Your task to perform on an android device: turn notification dots on Image 0: 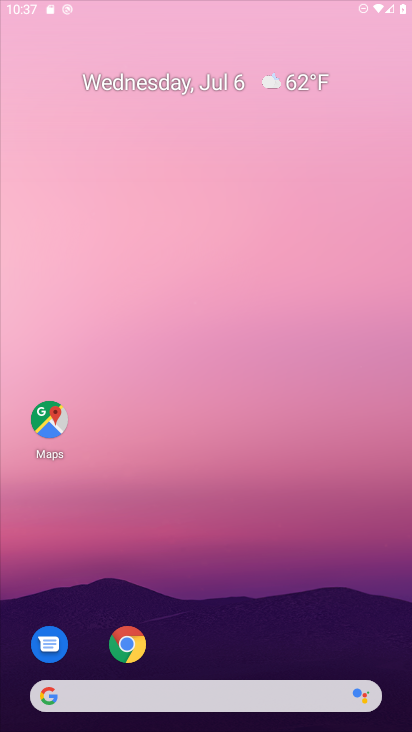
Step 0: press home button
Your task to perform on an android device: turn notification dots on Image 1: 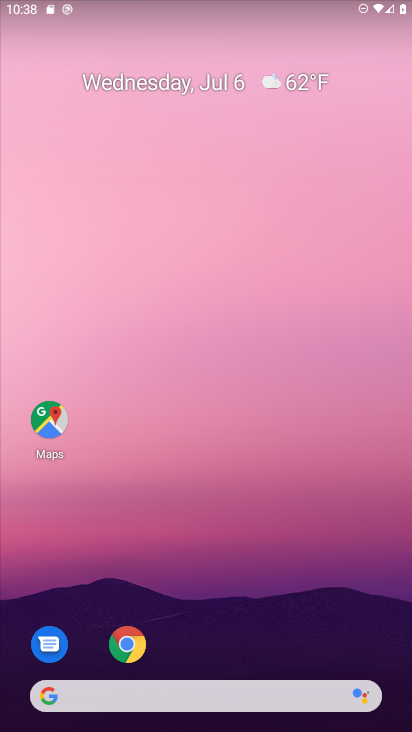
Step 1: drag from (241, 617) to (293, 159)
Your task to perform on an android device: turn notification dots on Image 2: 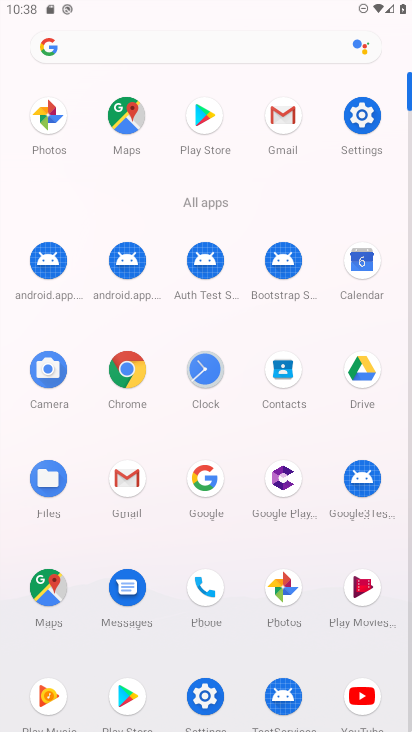
Step 2: click (364, 119)
Your task to perform on an android device: turn notification dots on Image 3: 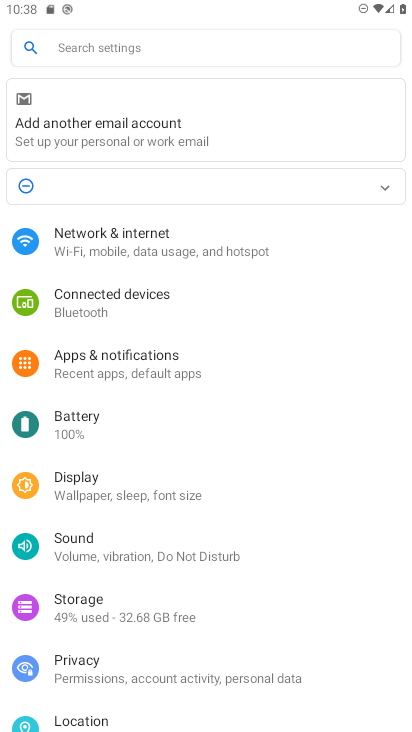
Step 3: click (102, 370)
Your task to perform on an android device: turn notification dots on Image 4: 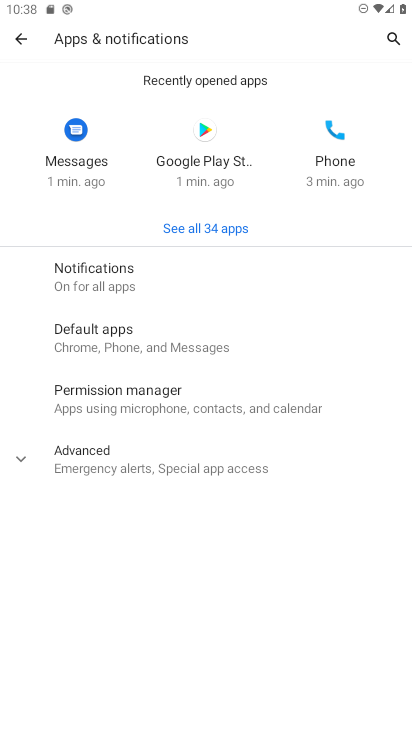
Step 4: click (80, 279)
Your task to perform on an android device: turn notification dots on Image 5: 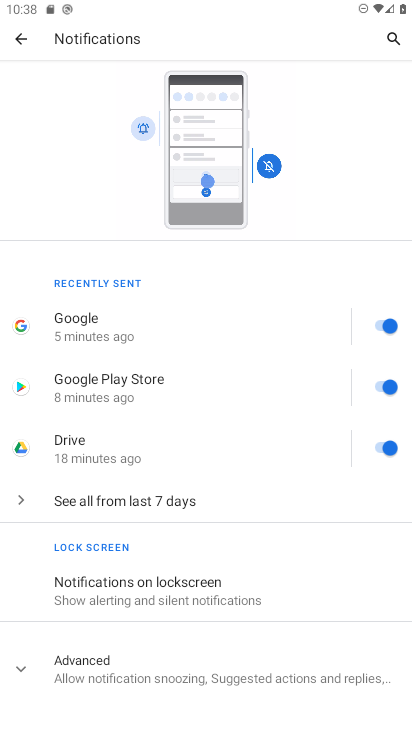
Step 5: click (78, 663)
Your task to perform on an android device: turn notification dots on Image 6: 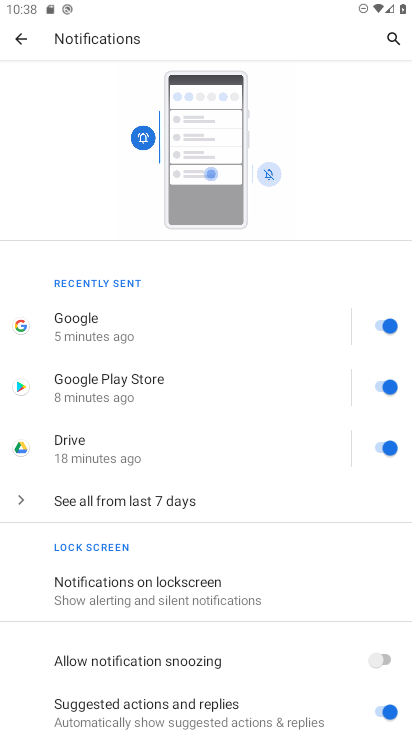
Step 6: task complete